Your task to perform on an android device: Open Wikipedia Image 0: 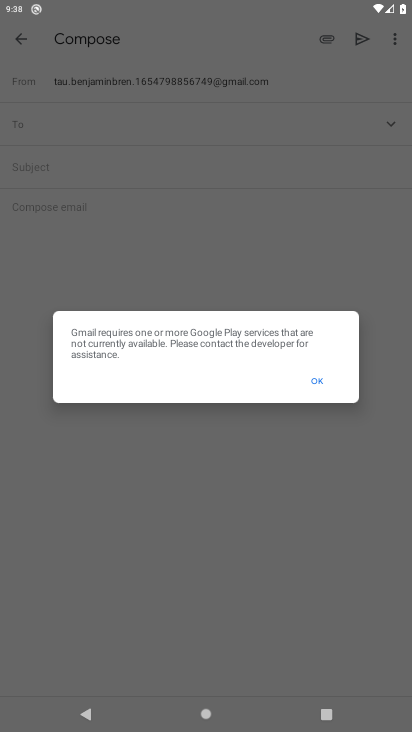
Step 0: press home button
Your task to perform on an android device: Open Wikipedia Image 1: 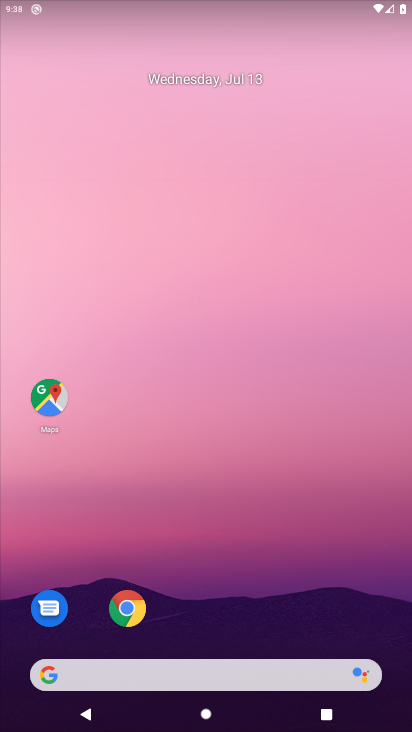
Step 1: click (96, 681)
Your task to perform on an android device: Open Wikipedia Image 2: 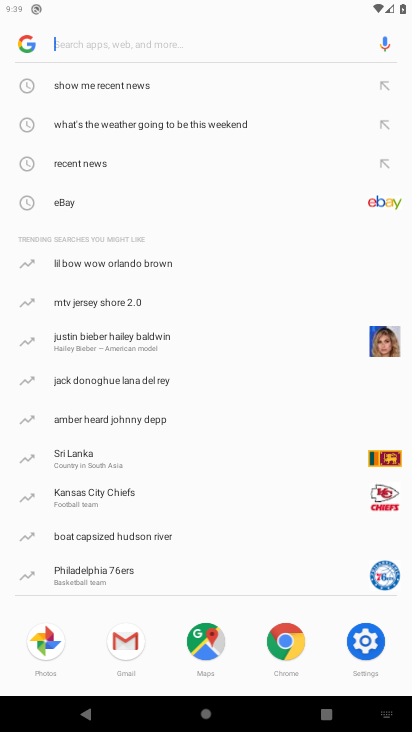
Step 2: type "Wikipedia"
Your task to perform on an android device: Open Wikipedia Image 3: 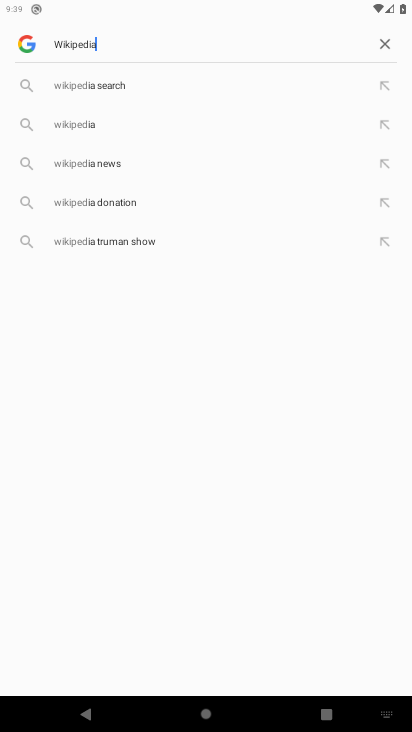
Step 3: type ""
Your task to perform on an android device: Open Wikipedia Image 4: 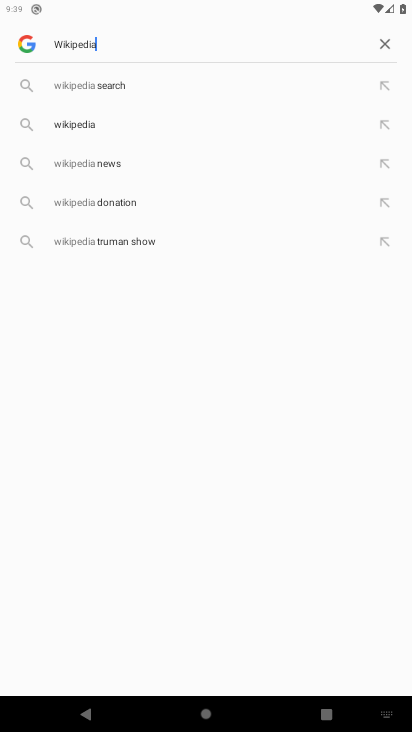
Step 4: click (83, 123)
Your task to perform on an android device: Open Wikipedia Image 5: 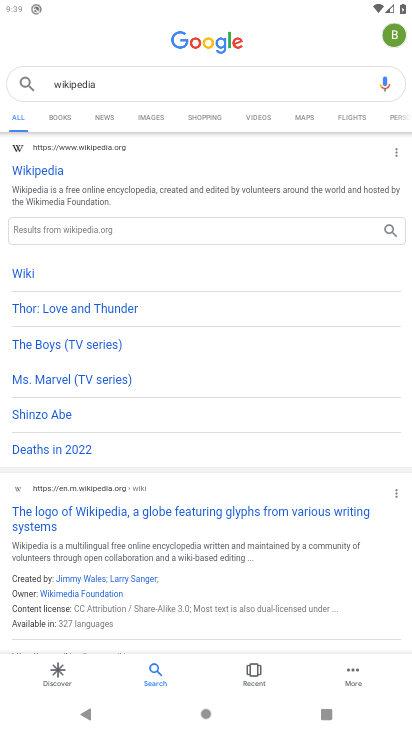
Step 5: task complete